Your task to perform on an android device: check android version Image 0: 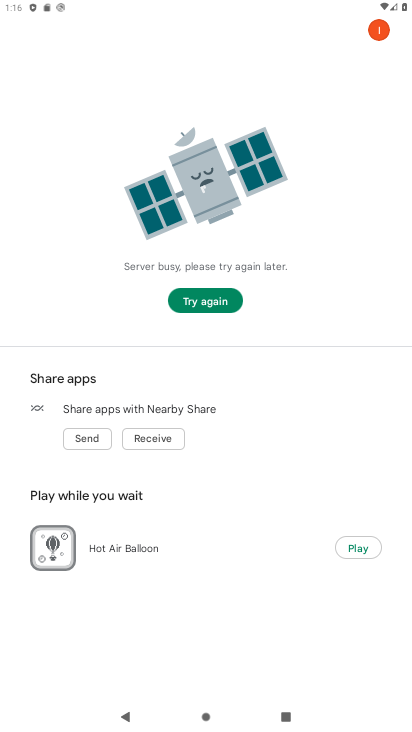
Step 0: press home button
Your task to perform on an android device: check android version Image 1: 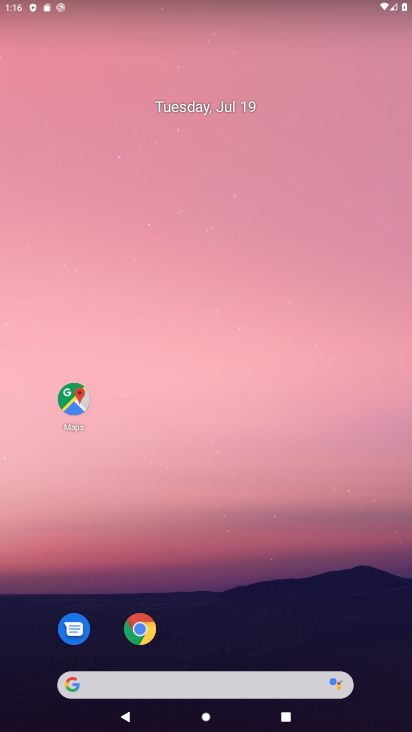
Step 1: drag from (187, 660) to (145, 144)
Your task to perform on an android device: check android version Image 2: 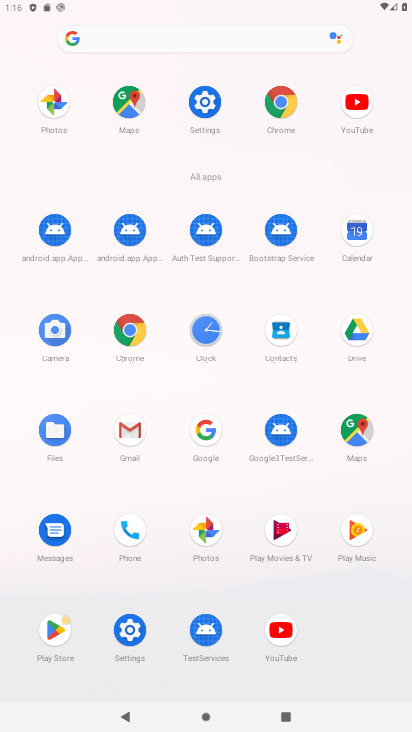
Step 2: click (209, 109)
Your task to perform on an android device: check android version Image 3: 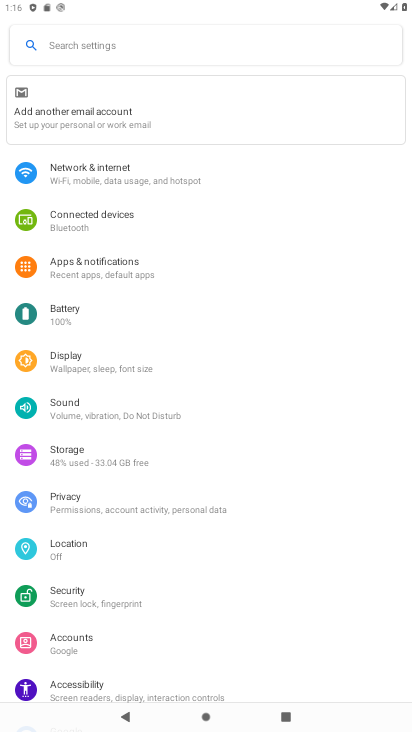
Step 3: drag from (119, 544) to (29, 81)
Your task to perform on an android device: check android version Image 4: 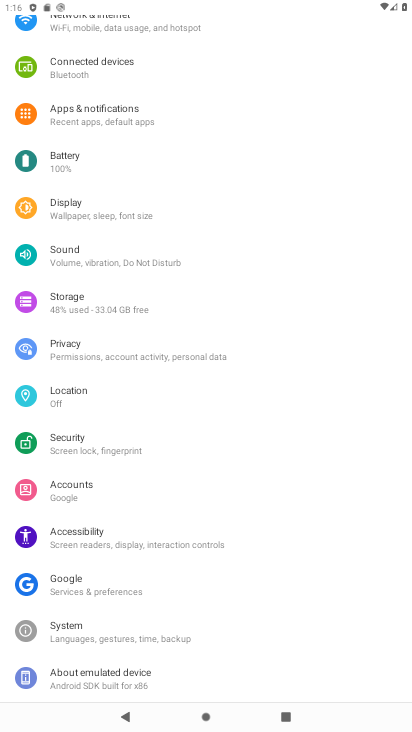
Step 4: click (119, 676)
Your task to perform on an android device: check android version Image 5: 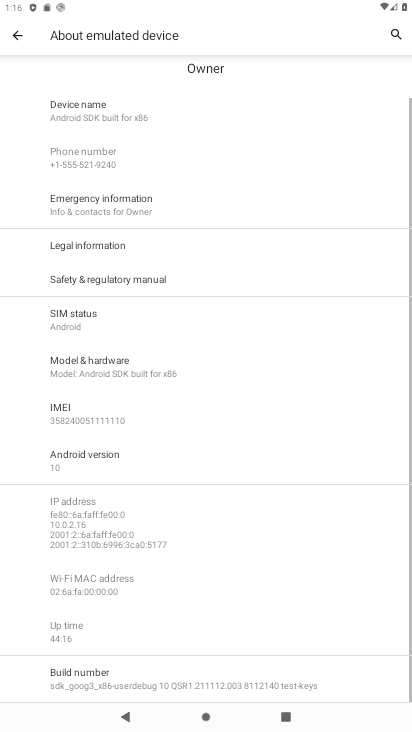
Step 5: click (106, 450)
Your task to perform on an android device: check android version Image 6: 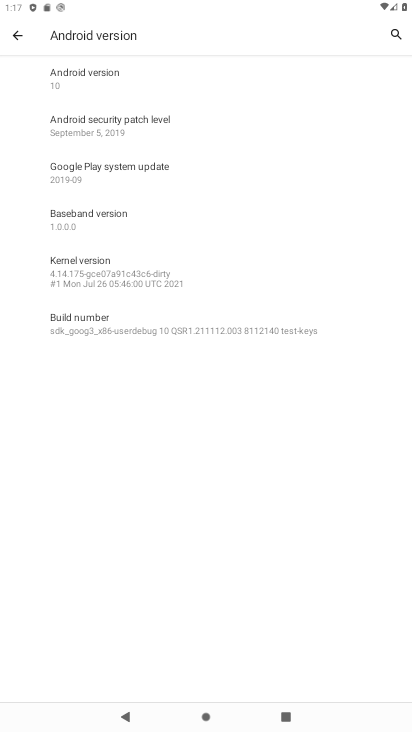
Step 6: task complete